Your task to perform on an android device: remove spam from my inbox in the gmail app Image 0: 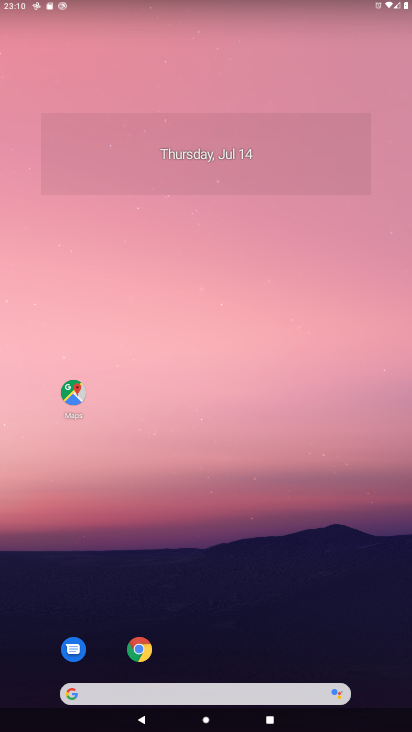
Step 0: drag from (207, 633) to (249, 58)
Your task to perform on an android device: remove spam from my inbox in the gmail app Image 1: 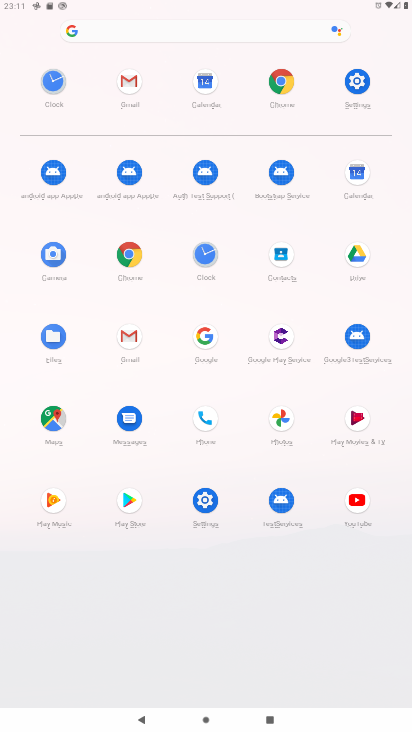
Step 1: click (130, 88)
Your task to perform on an android device: remove spam from my inbox in the gmail app Image 2: 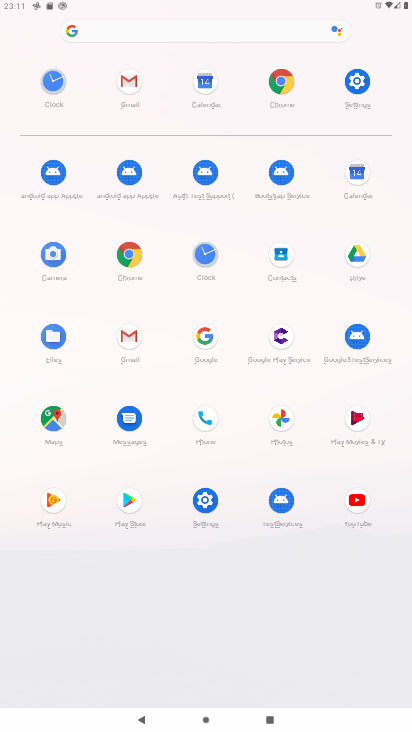
Step 2: click (130, 88)
Your task to perform on an android device: remove spam from my inbox in the gmail app Image 3: 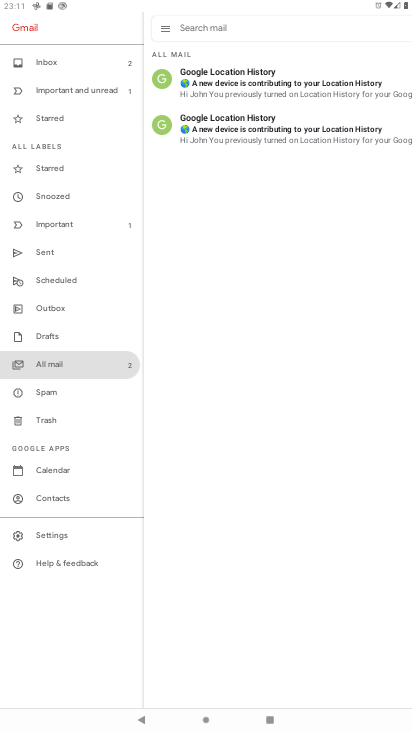
Step 3: click (45, 395)
Your task to perform on an android device: remove spam from my inbox in the gmail app Image 4: 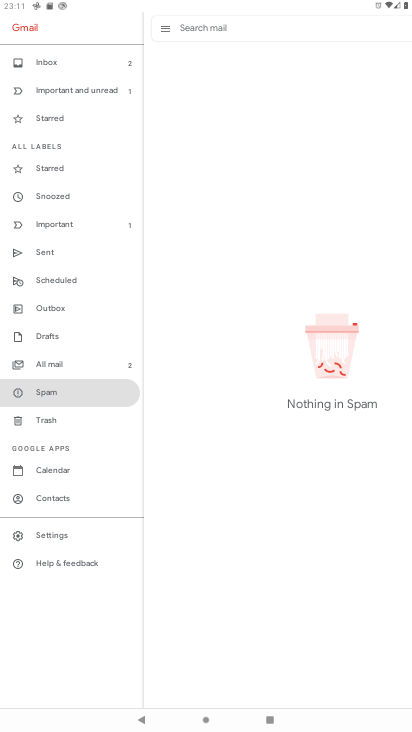
Step 4: task complete